Your task to perform on an android device: Do I have any events this weekend? Image 0: 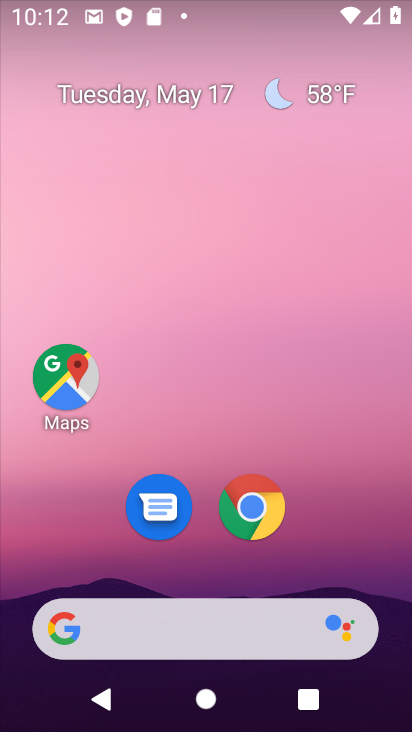
Step 0: drag from (196, 228) to (161, 13)
Your task to perform on an android device: Do I have any events this weekend? Image 1: 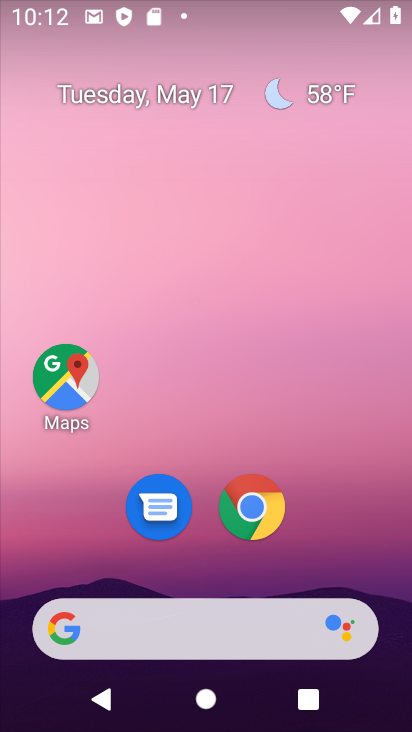
Step 1: drag from (327, 550) to (176, 20)
Your task to perform on an android device: Do I have any events this weekend? Image 2: 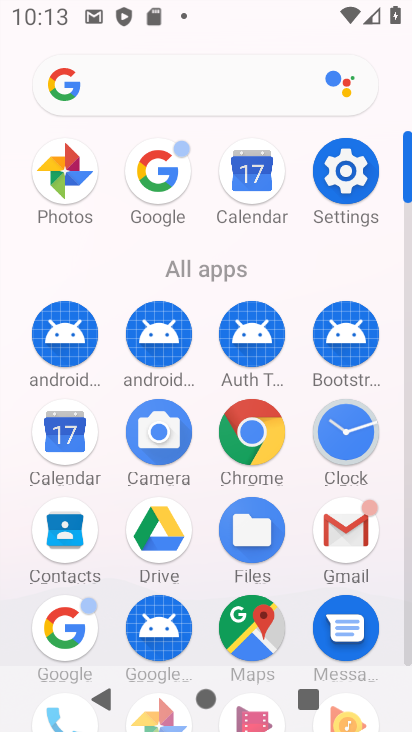
Step 2: click (63, 436)
Your task to perform on an android device: Do I have any events this weekend? Image 3: 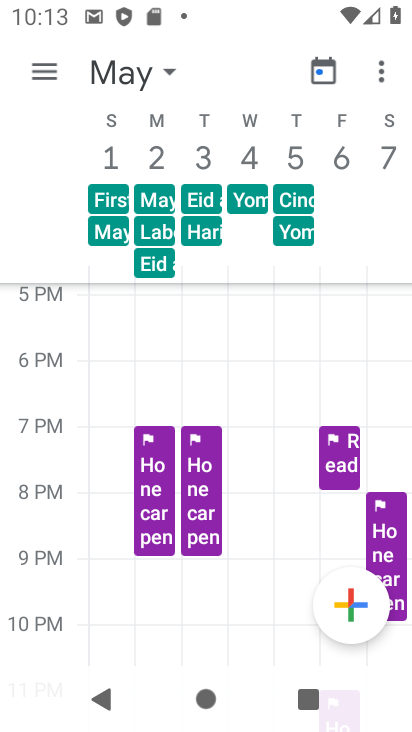
Step 3: drag from (261, 394) to (183, 165)
Your task to perform on an android device: Do I have any events this weekend? Image 4: 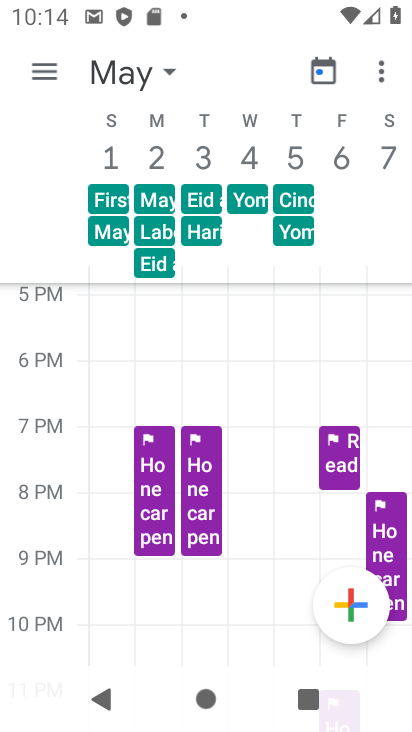
Step 4: click (157, 65)
Your task to perform on an android device: Do I have any events this weekend? Image 5: 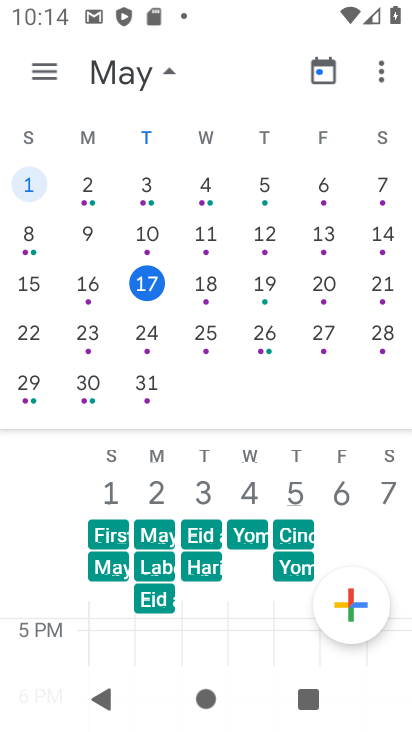
Step 5: click (365, 282)
Your task to perform on an android device: Do I have any events this weekend? Image 6: 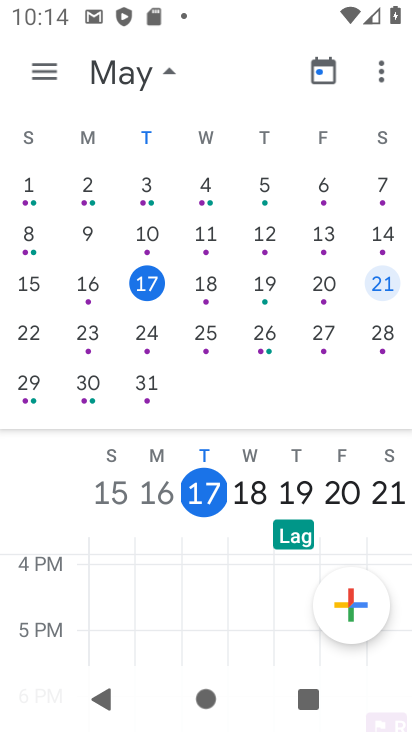
Step 6: task complete